Your task to perform on an android device: uninstall "WhatsApp Messenger" Image 0: 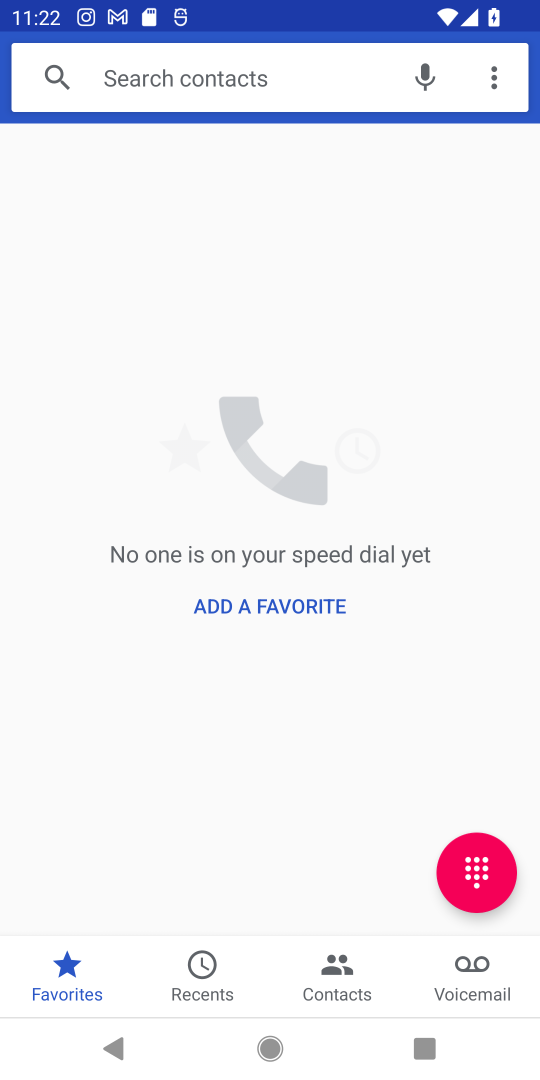
Step 0: press home button
Your task to perform on an android device: uninstall "WhatsApp Messenger" Image 1: 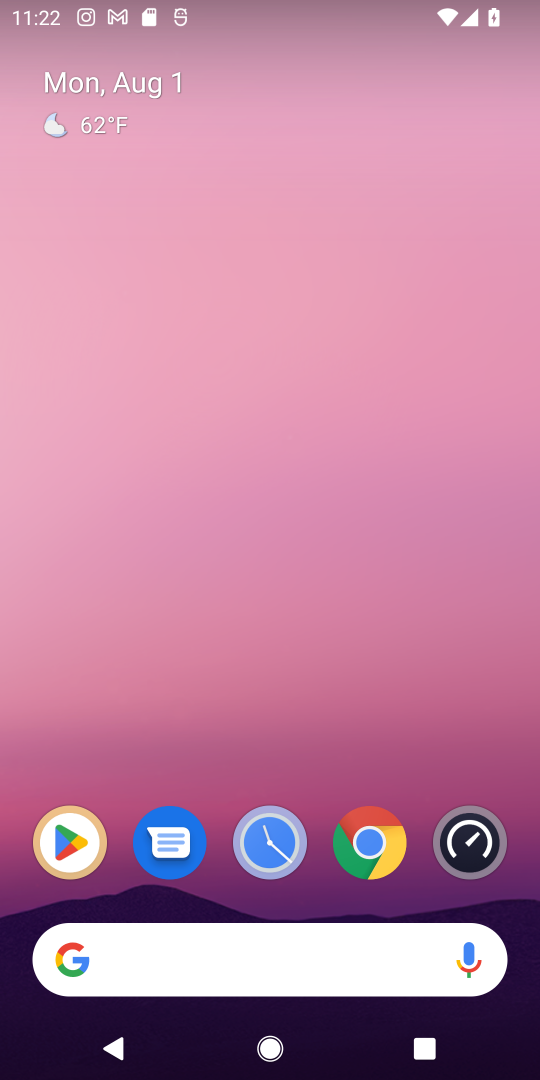
Step 1: click (63, 839)
Your task to perform on an android device: uninstall "WhatsApp Messenger" Image 2: 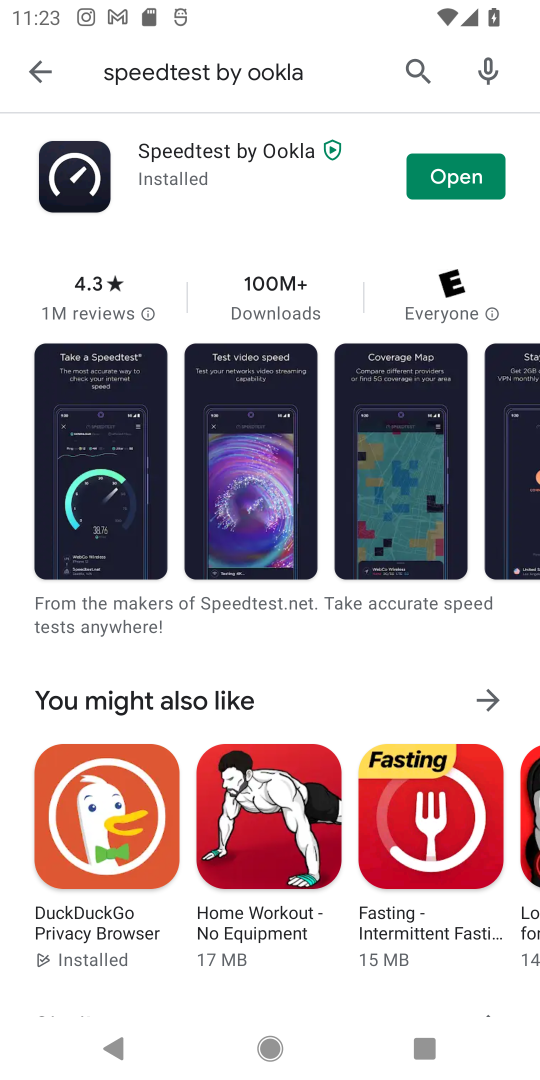
Step 2: click (426, 65)
Your task to perform on an android device: uninstall "WhatsApp Messenger" Image 3: 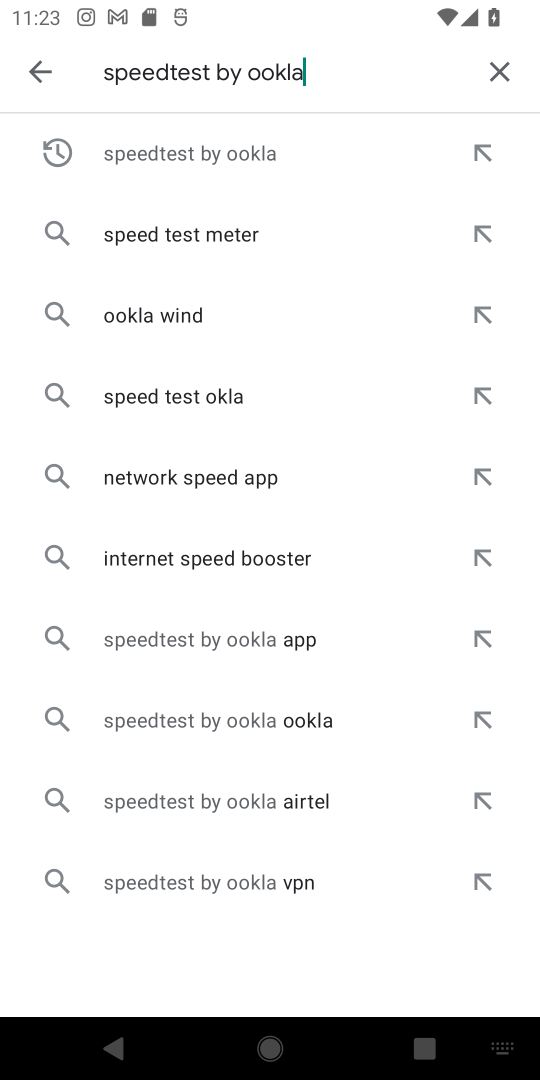
Step 3: click (502, 79)
Your task to perform on an android device: uninstall "WhatsApp Messenger" Image 4: 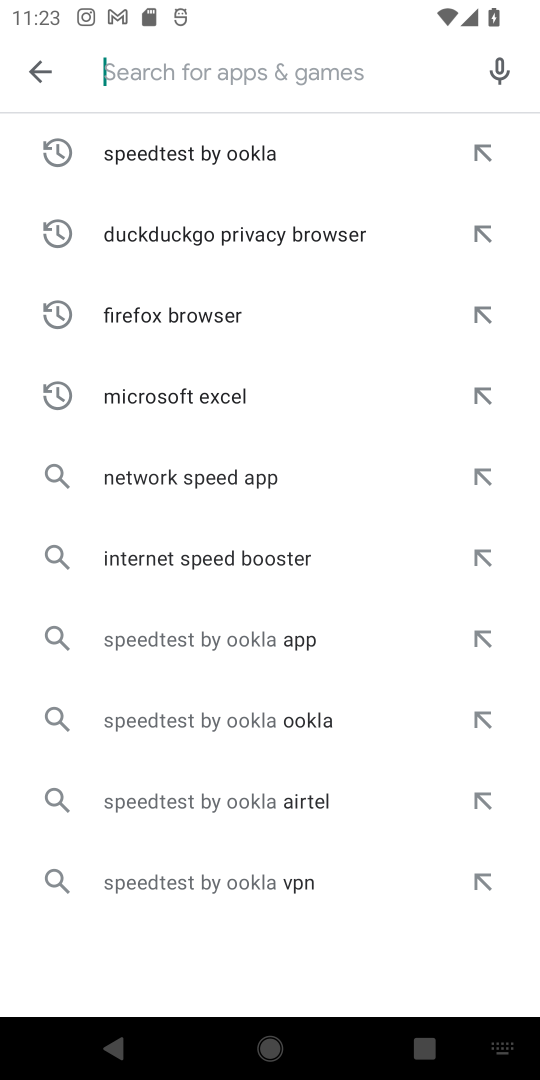
Step 4: click (228, 70)
Your task to perform on an android device: uninstall "WhatsApp Messenger" Image 5: 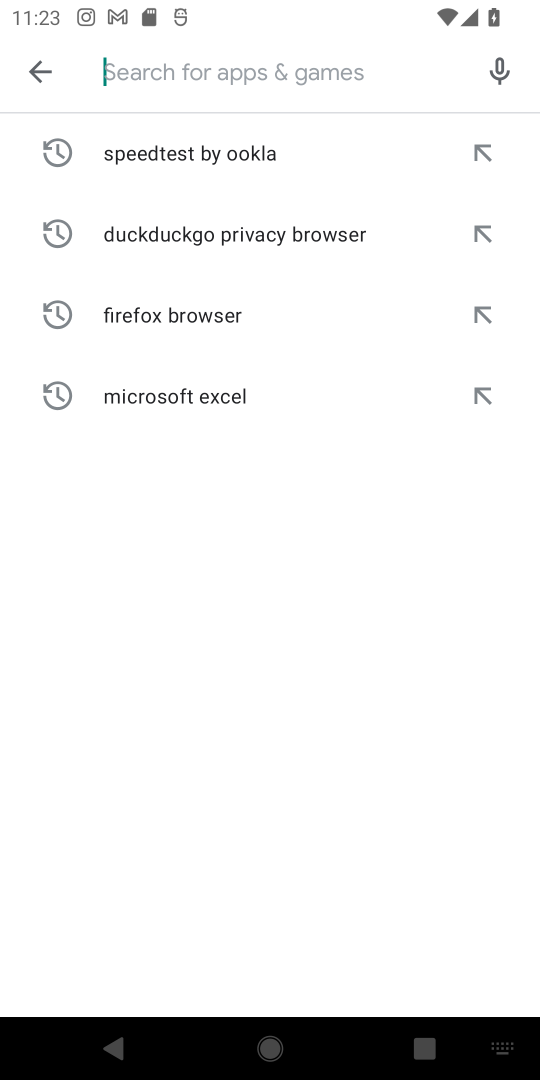
Step 5: click (228, 70)
Your task to perform on an android device: uninstall "WhatsApp Messenger" Image 6: 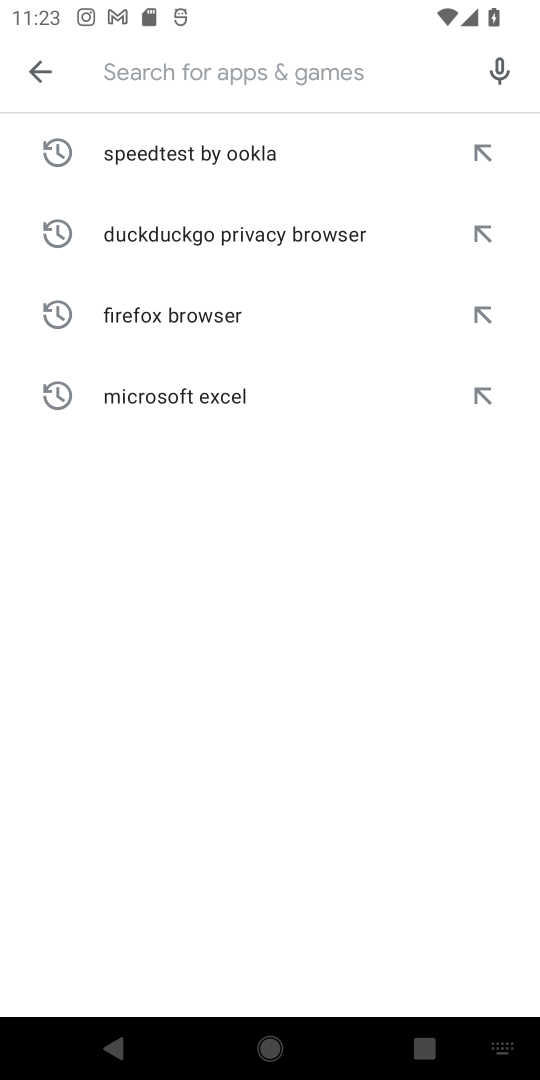
Step 6: click (172, 71)
Your task to perform on an android device: uninstall "WhatsApp Messenger" Image 7: 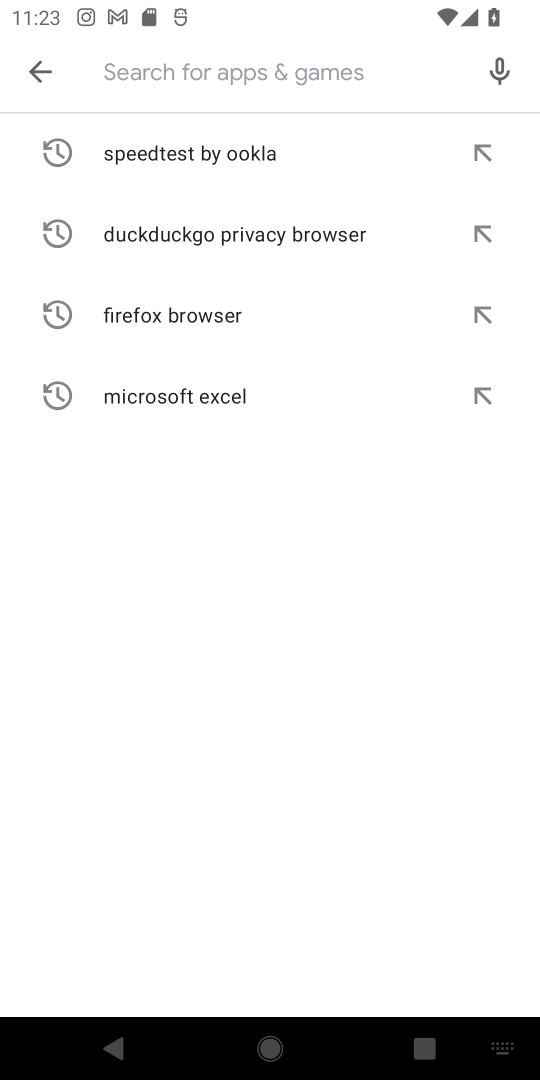
Step 7: type "WhatsApp Messenger"
Your task to perform on an android device: uninstall "WhatsApp Messenger" Image 8: 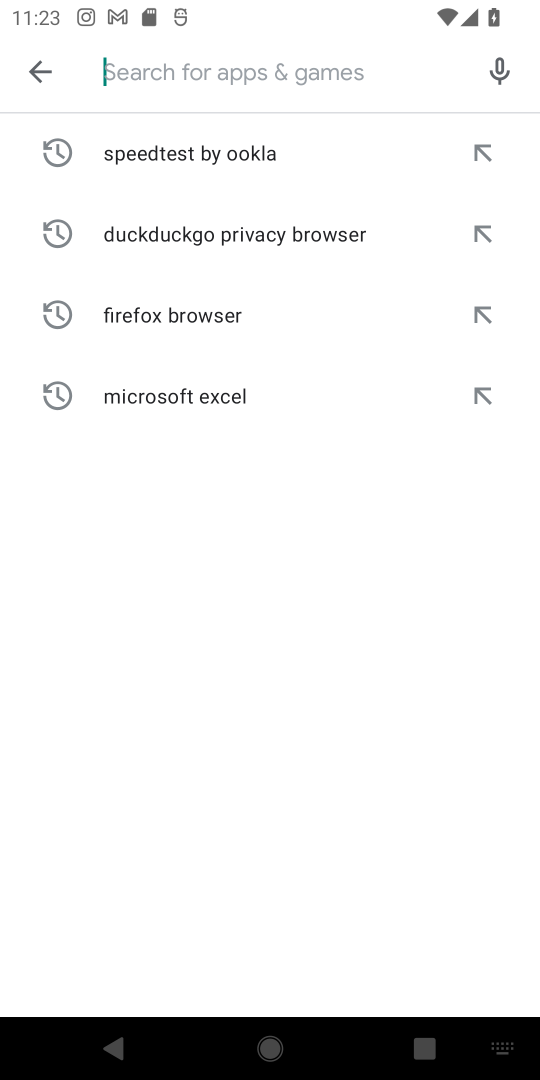
Step 8: click (348, 655)
Your task to perform on an android device: uninstall "WhatsApp Messenger" Image 9: 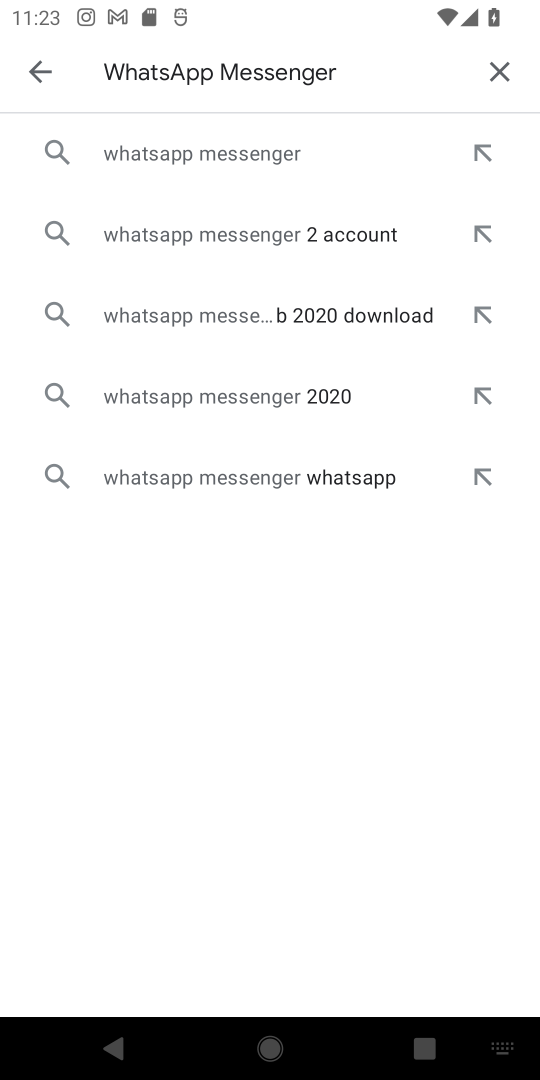
Step 9: click (208, 141)
Your task to perform on an android device: uninstall "WhatsApp Messenger" Image 10: 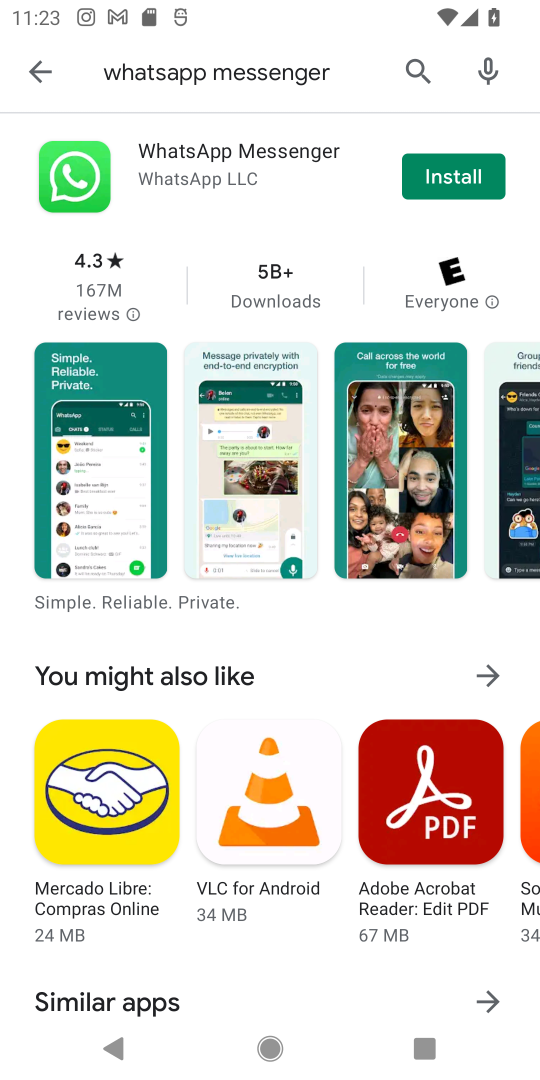
Step 10: task complete